Your task to perform on an android device: Open maps Image 0: 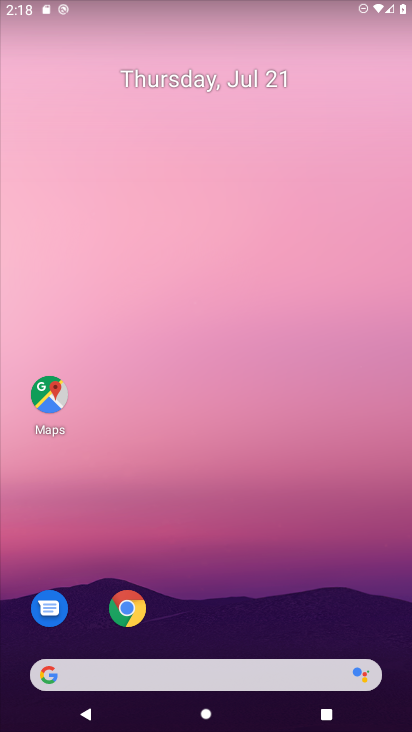
Step 0: click (37, 407)
Your task to perform on an android device: Open maps Image 1: 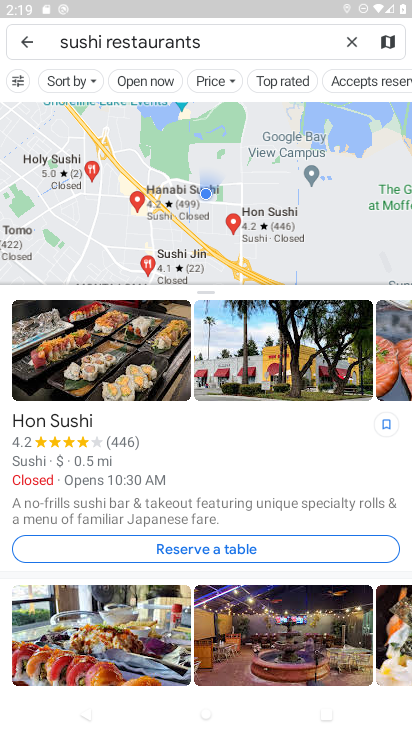
Step 1: task complete